Your task to perform on an android device: add a contact in the contacts app Image 0: 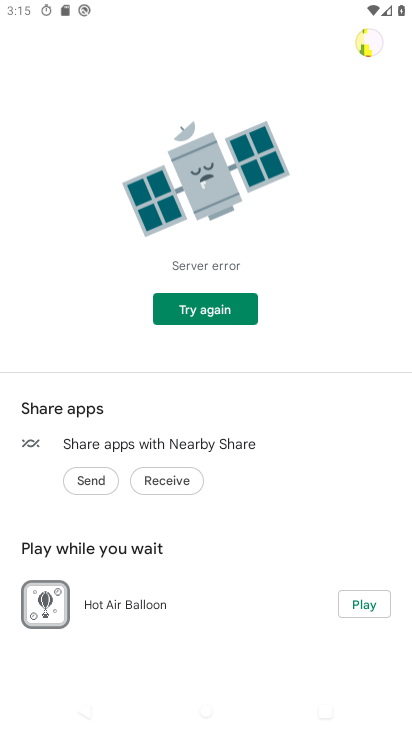
Step 0: press home button
Your task to perform on an android device: add a contact in the contacts app Image 1: 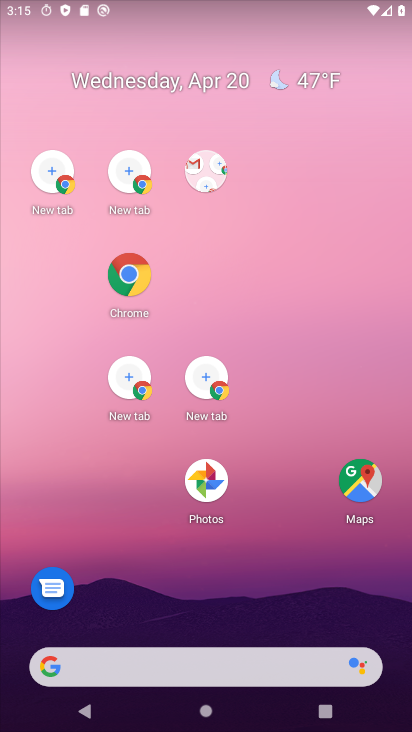
Step 1: drag from (258, 689) to (210, 185)
Your task to perform on an android device: add a contact in the contacts app Image 2: 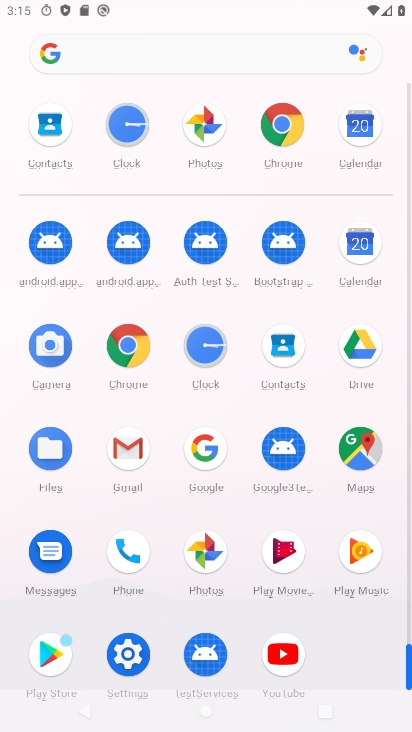
Step 2: click (279, 346)
Your task to perform on an android device: add a contact in the contacts app Image 3: 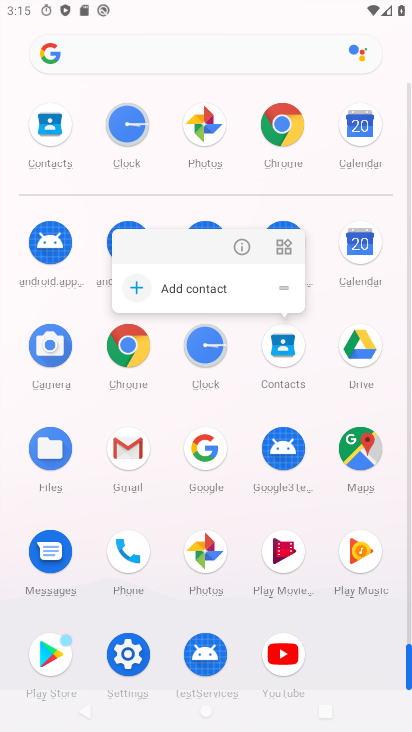
Step 3: click (279, 346)
Your task to perform on an android device: add a contact in the contacts app Image 4: 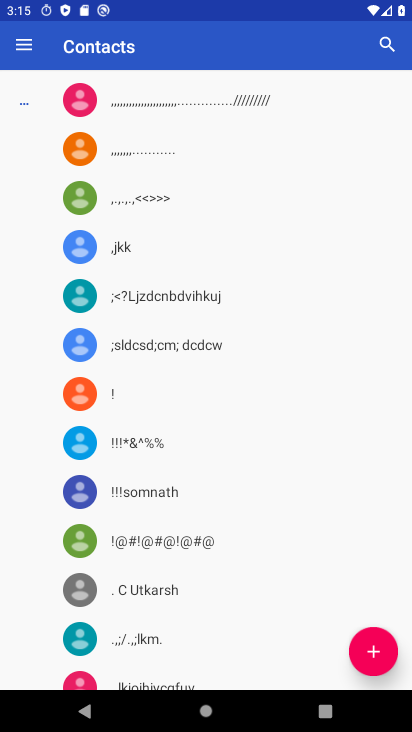
Step 4: click (373, 642)
Your task to perform on an android device: add a contact in the contacts app Image 5: 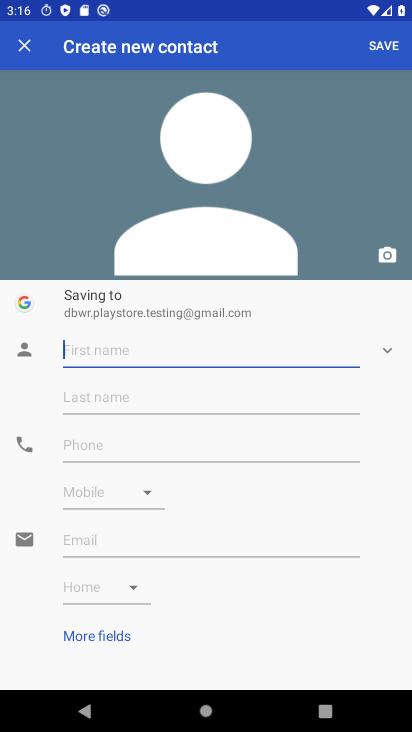
Step 5: type "KAAM"
Your task to perform on an android device: add a contact in the contacts app Image 6: 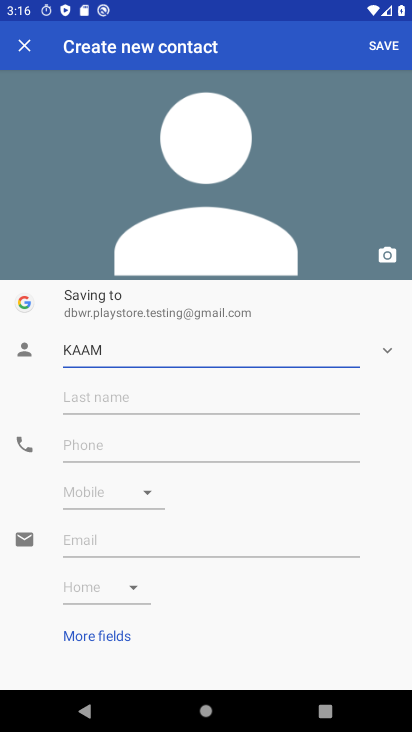
Step 6: click (91, 444)
Your task to perform on an android device: add a contact in the contacts app Image 7: 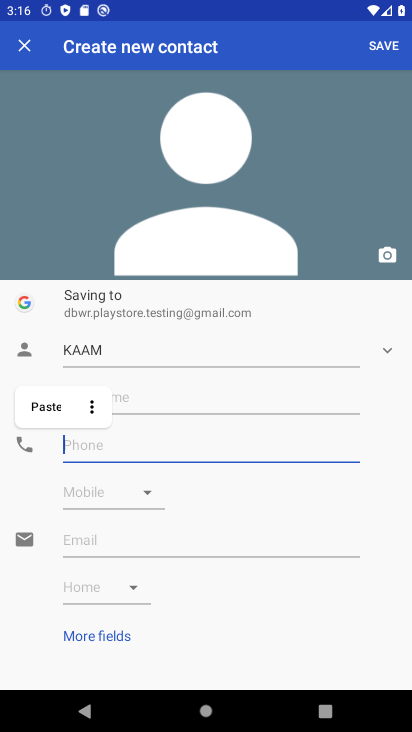
Step 7: type "9890786745"
Your task to perform on an android device: add a contact in the contacts app Image 8: 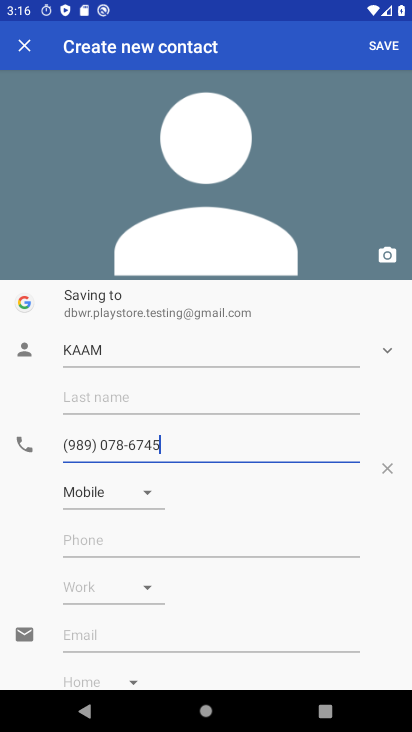
Step 8: click (385, 39)
Your task to perform on an android device: add a contact in the contacts app Image 9: 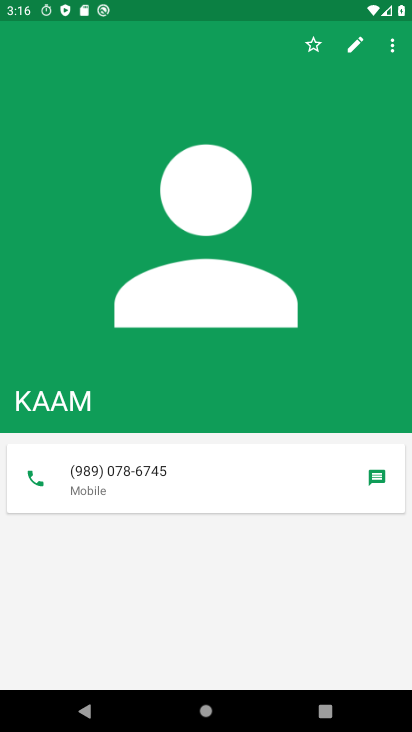
Step 9: task complete